Your task to perform on an android device: Open settings Image 0: 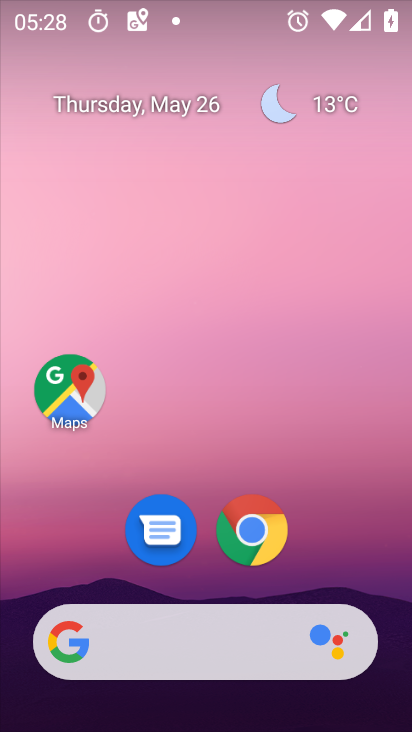
Step 0: drag from (266, 669) to (273, 114)
Your task to perform on an android device: Open settings Image 1: 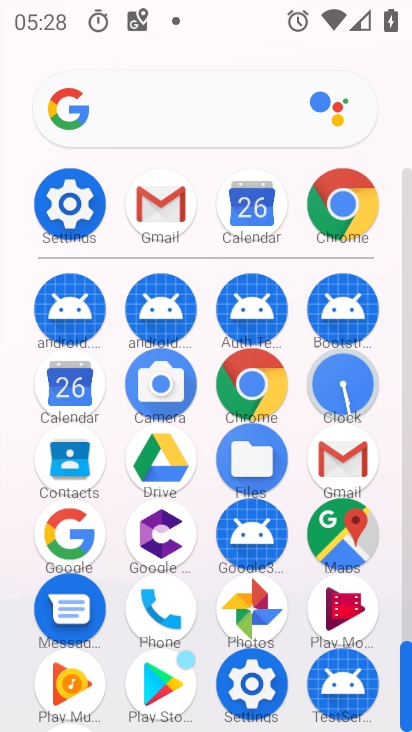
Step 1: click (77, 207)
Your task to perform on an android device: Open settings Image 2: 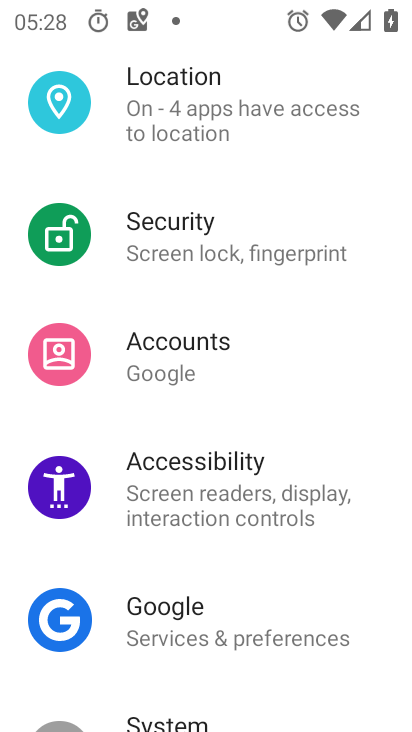
Step 2: task complete